Your task to perform on an android device: View the shopping cart on newegg.com. Add logitech g502 to the cart on newegg.com Image 0: 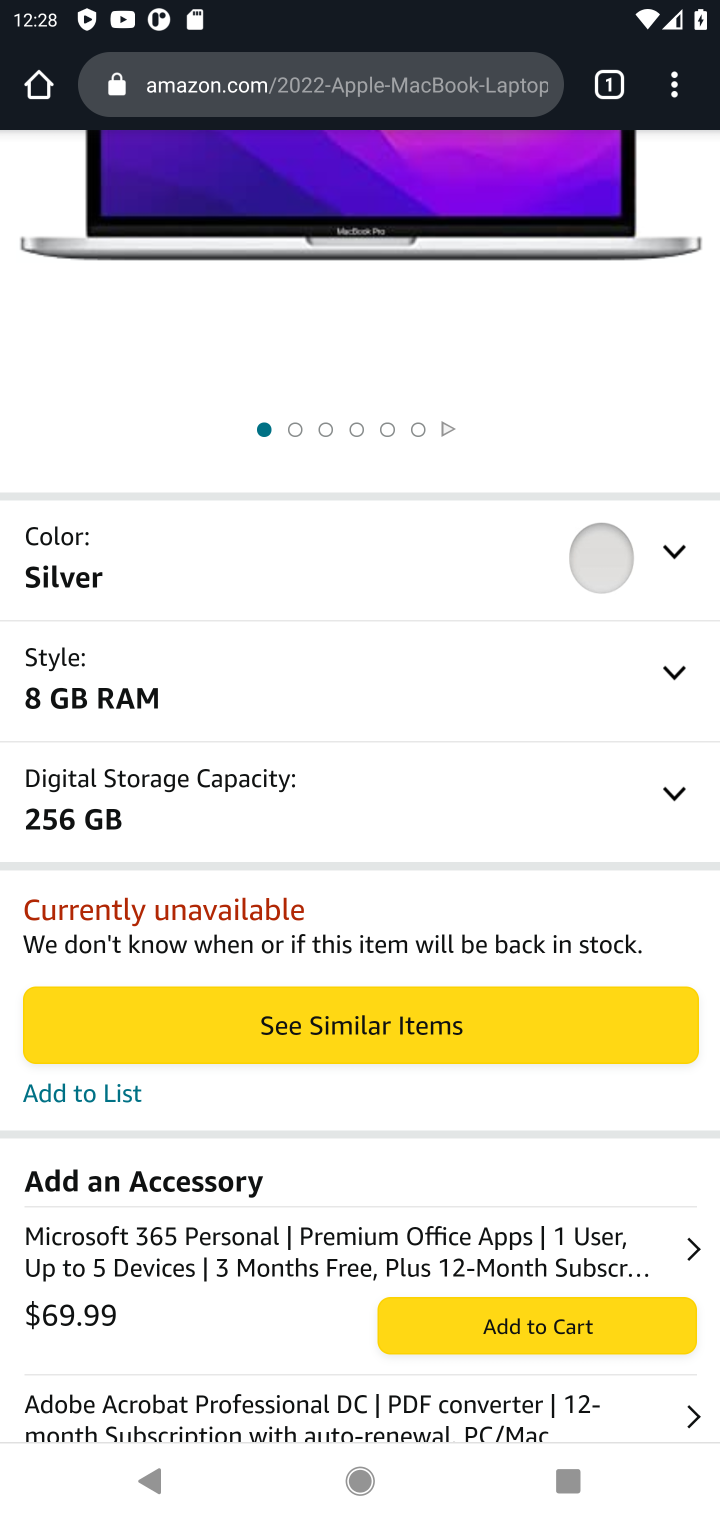
Step 0: press home button
Your task to perform on an android device: View the shopping cart on newegg.com. Add logitech g502 to the cart on newegg.com Image 1: 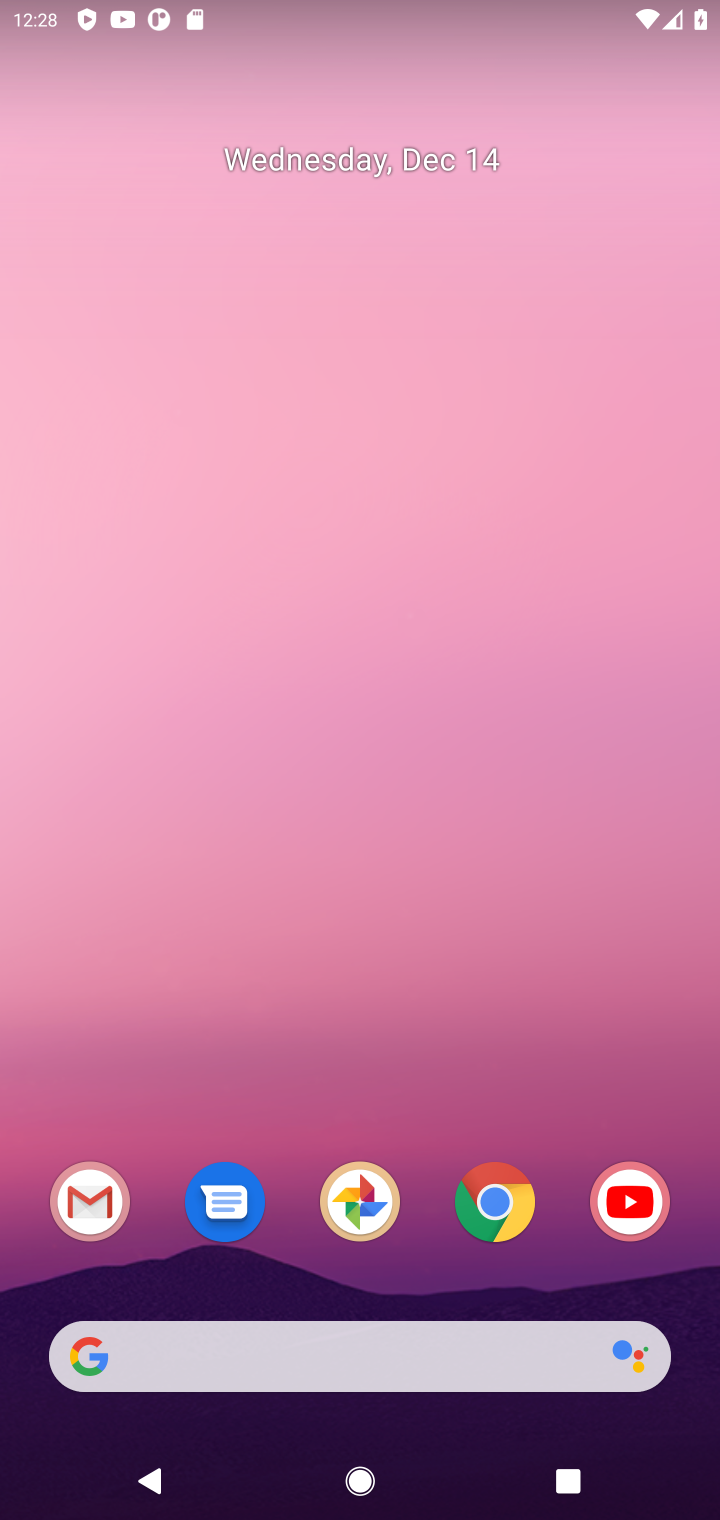
Step 1: click (497, 1213)
Your task to perform on an android device: View the shopping cart on newegg.com. Add logitech g502 to the cart on newegg.com Image 2: 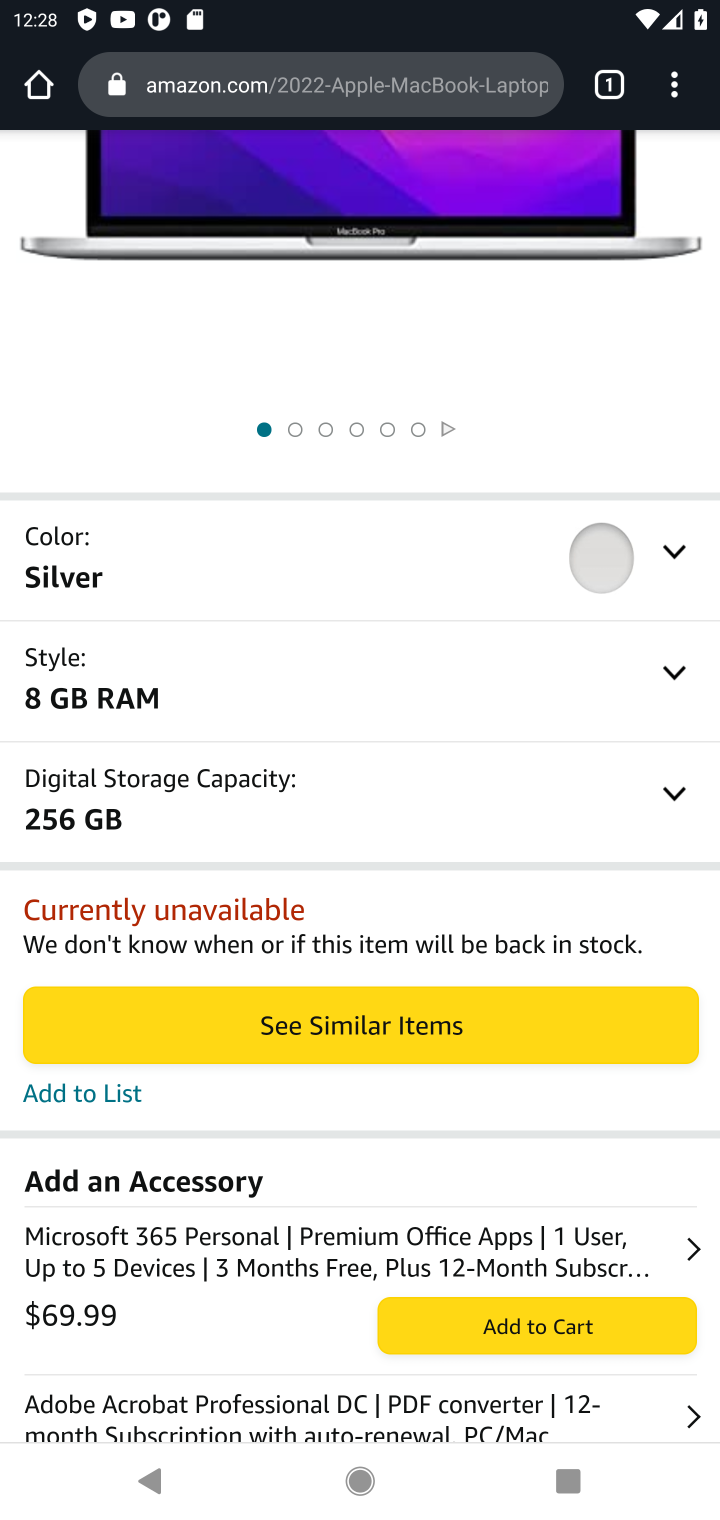
Step 2: click (301, 97)
Your task to perform on an android device: View the shopping cart on newegg.com. Add logitech g502 to the cart on newegg.com Image 3: 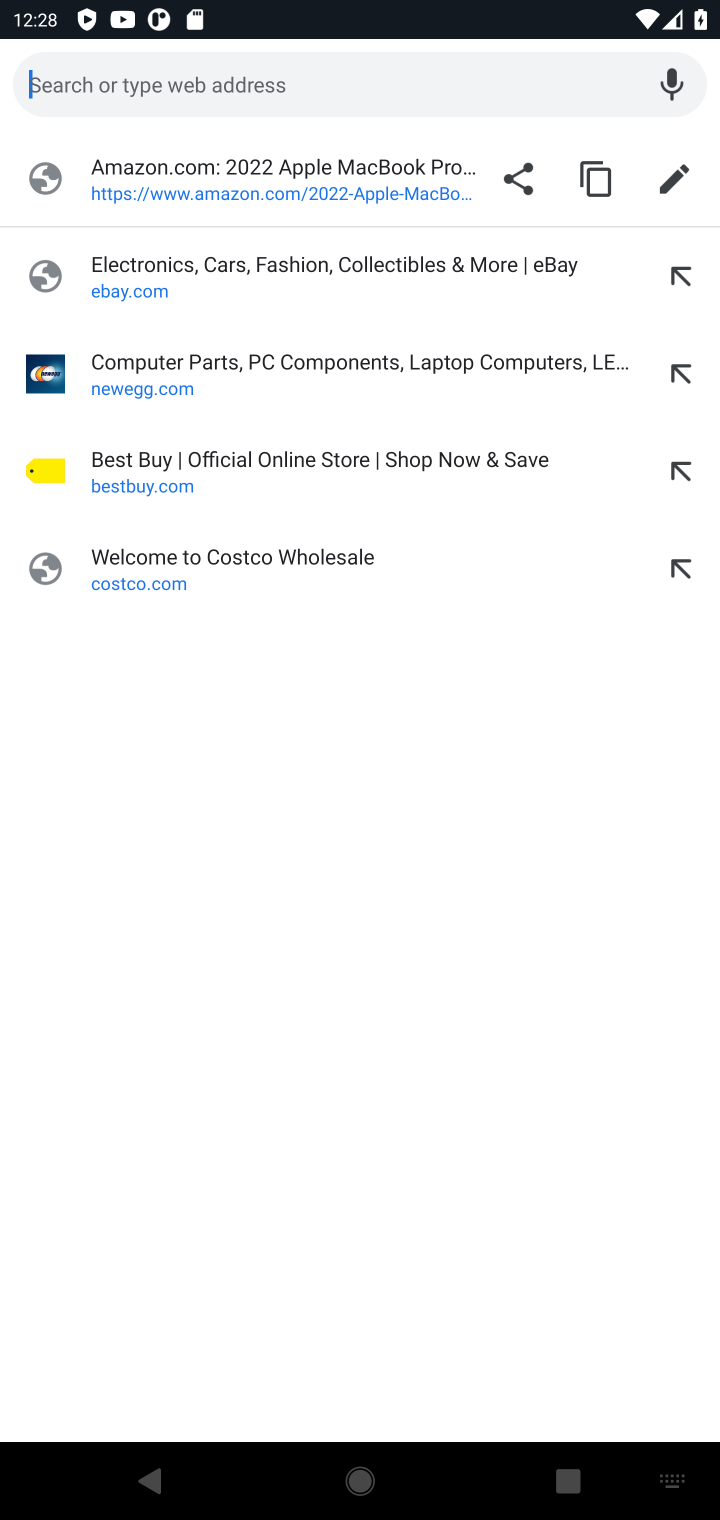
Step 3: click (235, 366)
Your task to perform on an android device: View the shopping cart on newegg.com. Add logitech g502 to the cart on newegg.com Image 4: 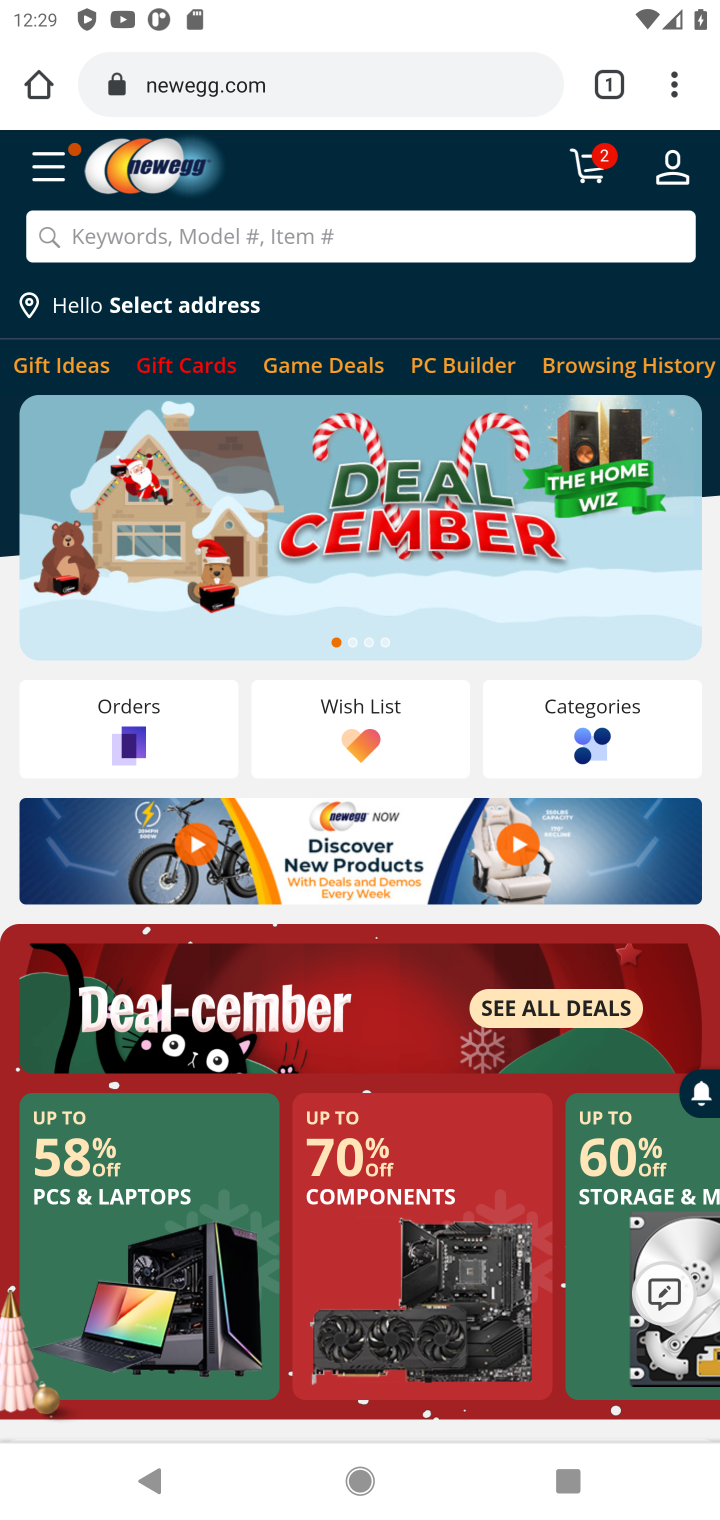
Step 4: click (431, 237)
Your task to perform on an android device: View the shopping cart on newegg.com. Add logitech g502 to the cart on newegg.com Image 5: 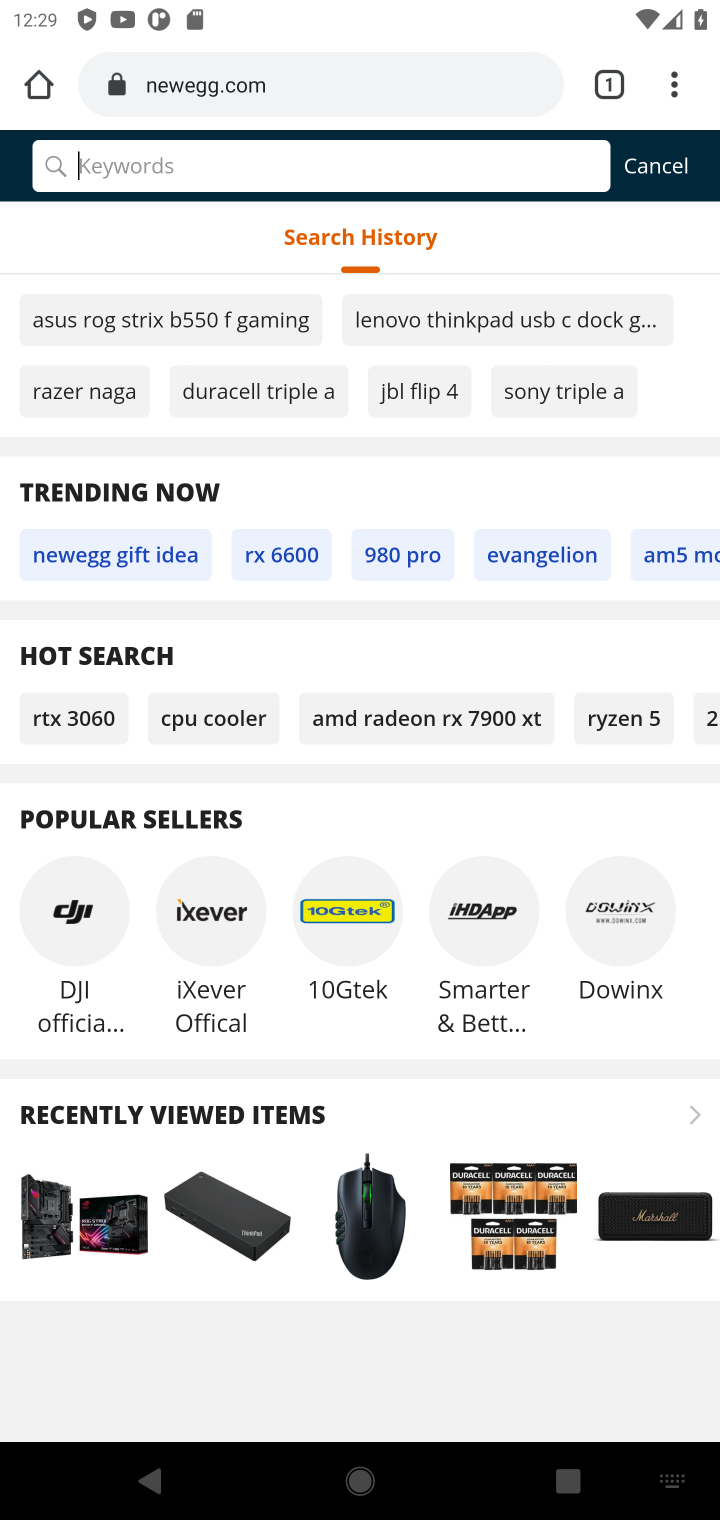
Step 5: click (719, 1507)
Your task to perform on an android device: View the shopping cart on newegg.com. Add logitech g502 to the cart on newegg.com Image 6: 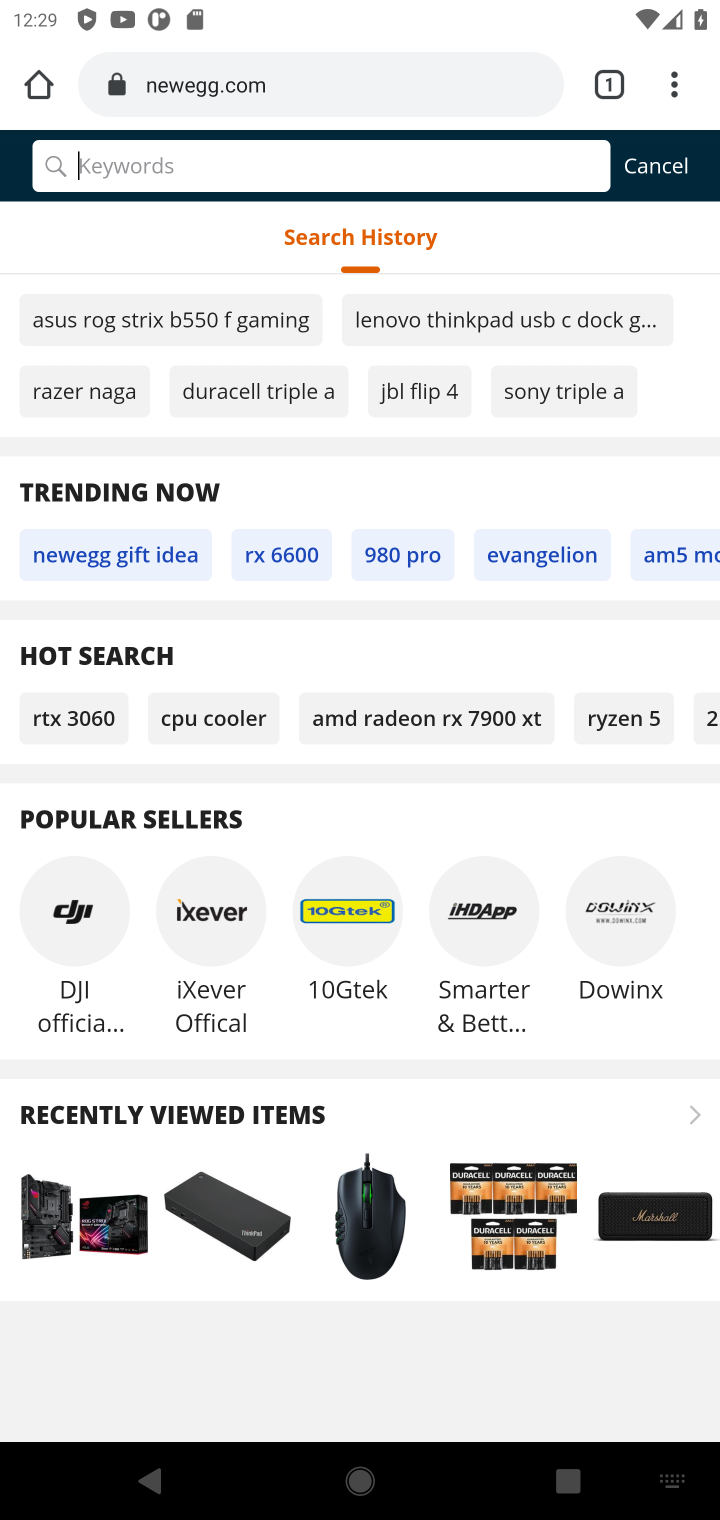
Step 6: type "logitech g502"
Your task to perform on an android device: View the shopping cart on newegg.com. Add logitech g502 to the cart on newegg.com Image 7: 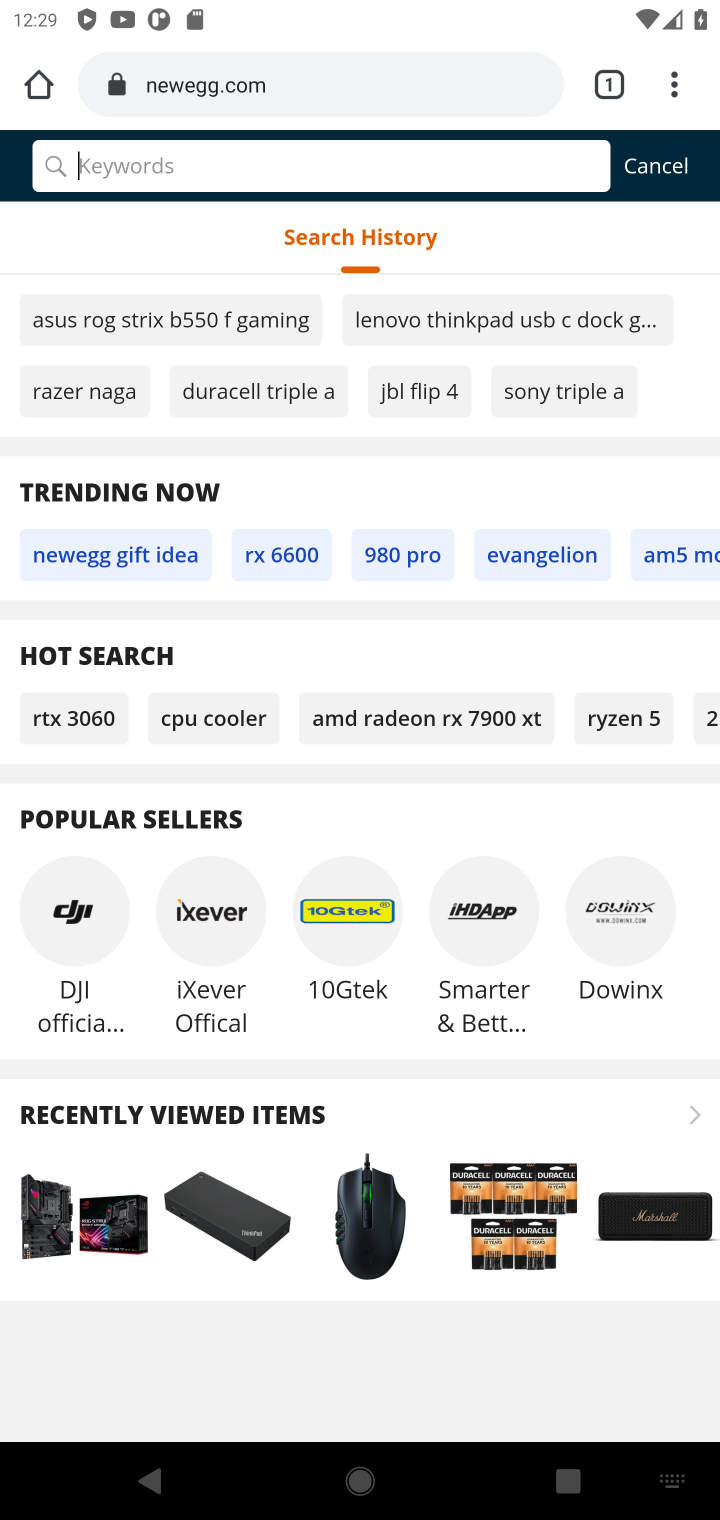
Step 7: drag from (719, 1507) to (711, 337)
Your task to perform on an android device: View the shopping cart on newegg.com. Add logitech g502 to the cart on newegg.com Image 8: 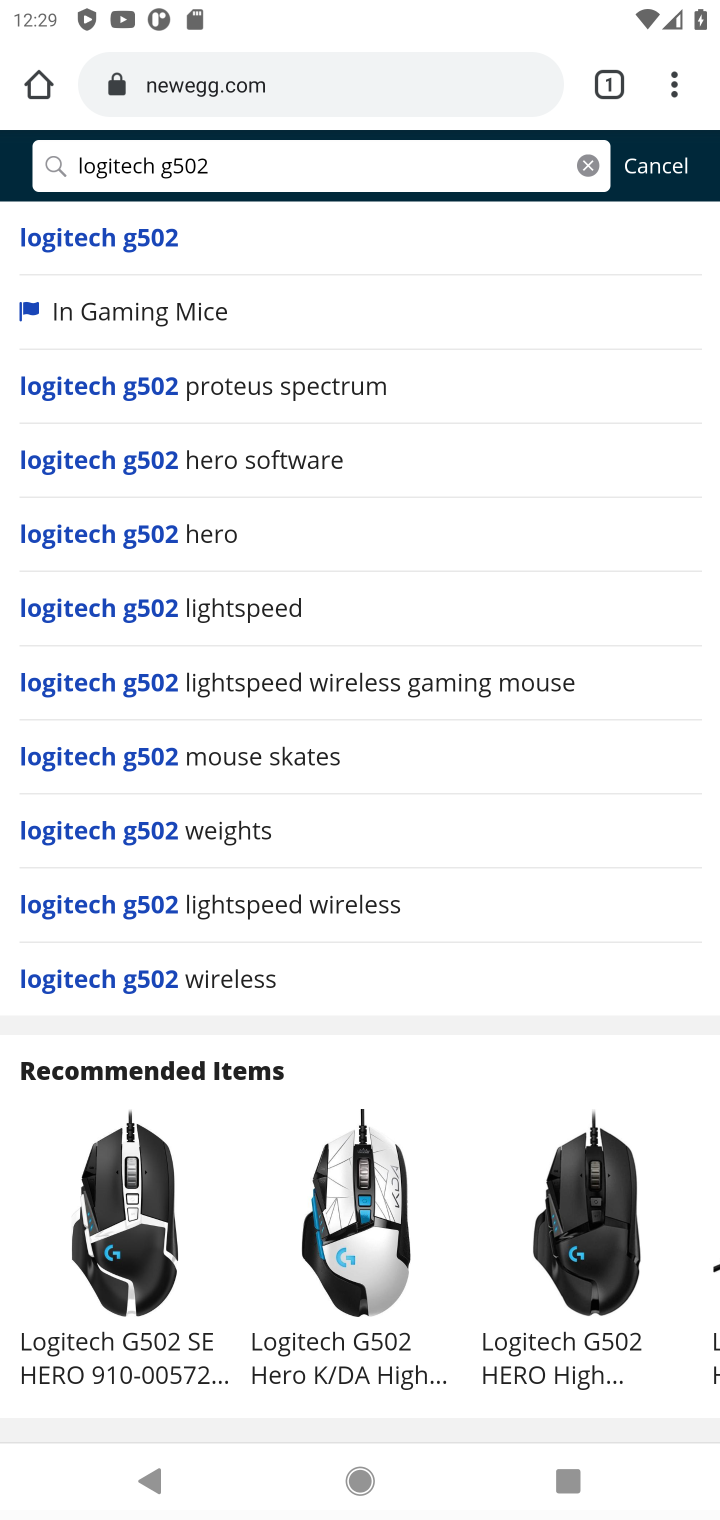
Step 8: click (106, 238)
Your task to perform on an android device: View the shopping cart on newegg.com. Add logitech g502 to the cart on newegg.com Image 9: 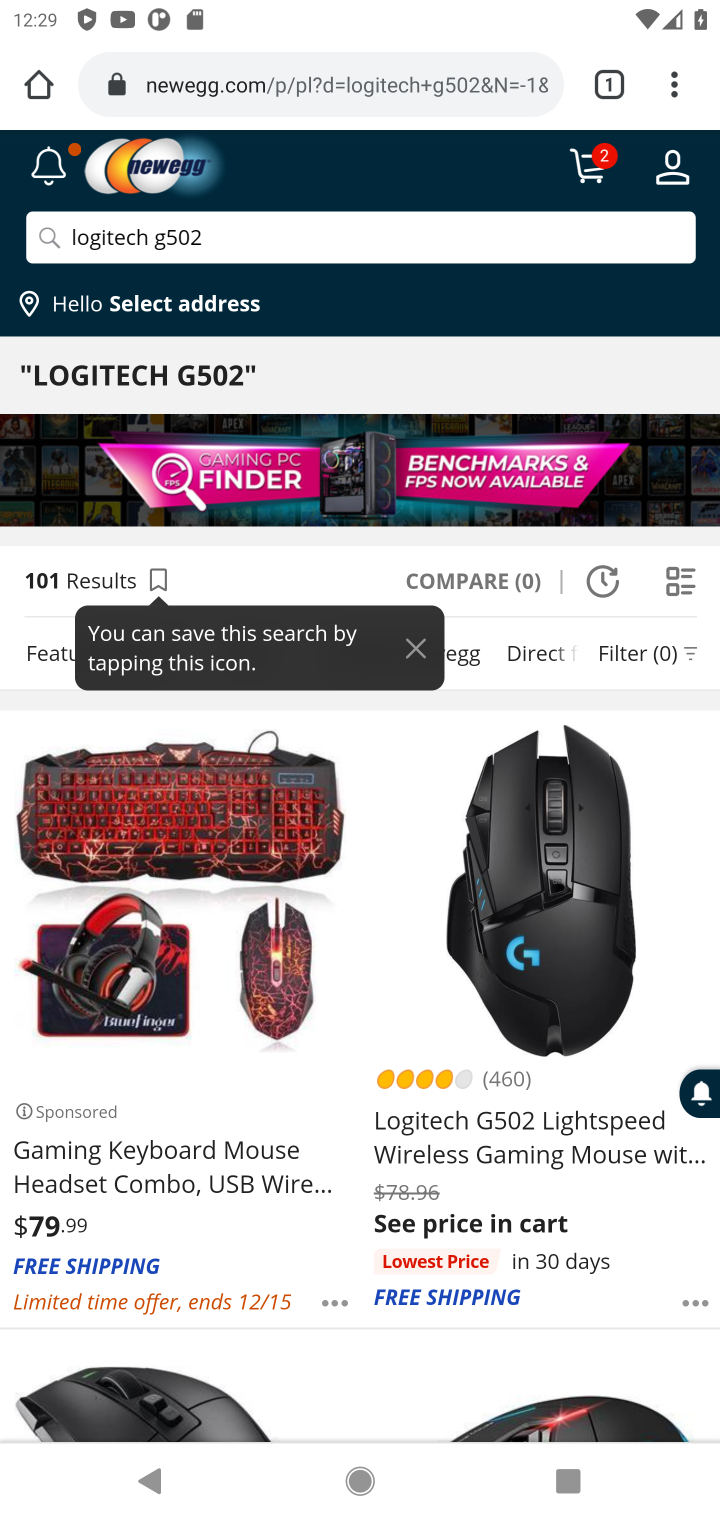
Step 9: click (151, 923)
Your task to perform on an android device: View the shopping cart on newegg.com. Add logitech g502 to the cart on newegg.com Image 10: 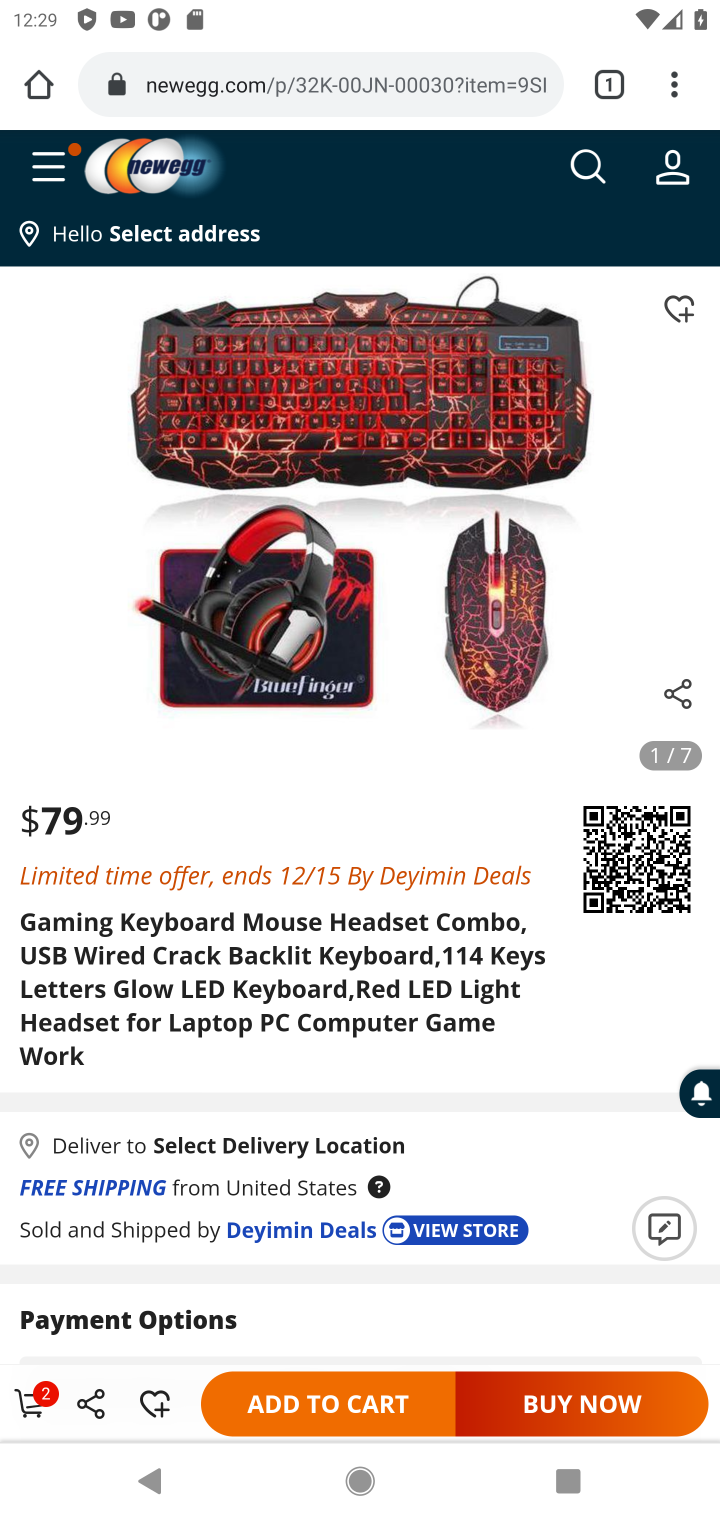
Step 10: click (317, 1404)
Your task to perform on an android device: View the shopping cart on newegg.com. Add logitech g502 to the cart on newegg.com Image 11: 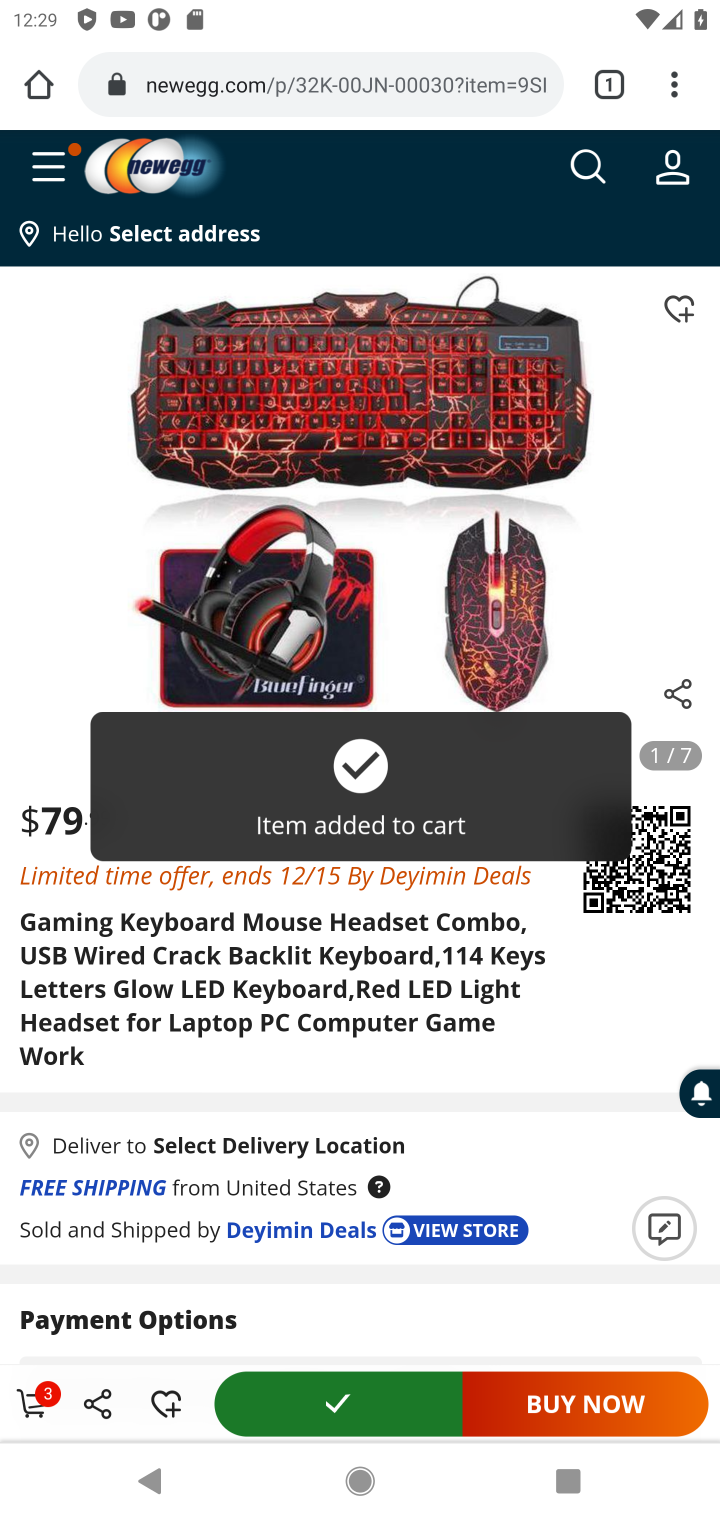
Step 11: click (41, 1406)
Your task to perform on an android device: View the shopping cart on newegg.com. Add logitech g502 to the cart on newegg.com Image 12: 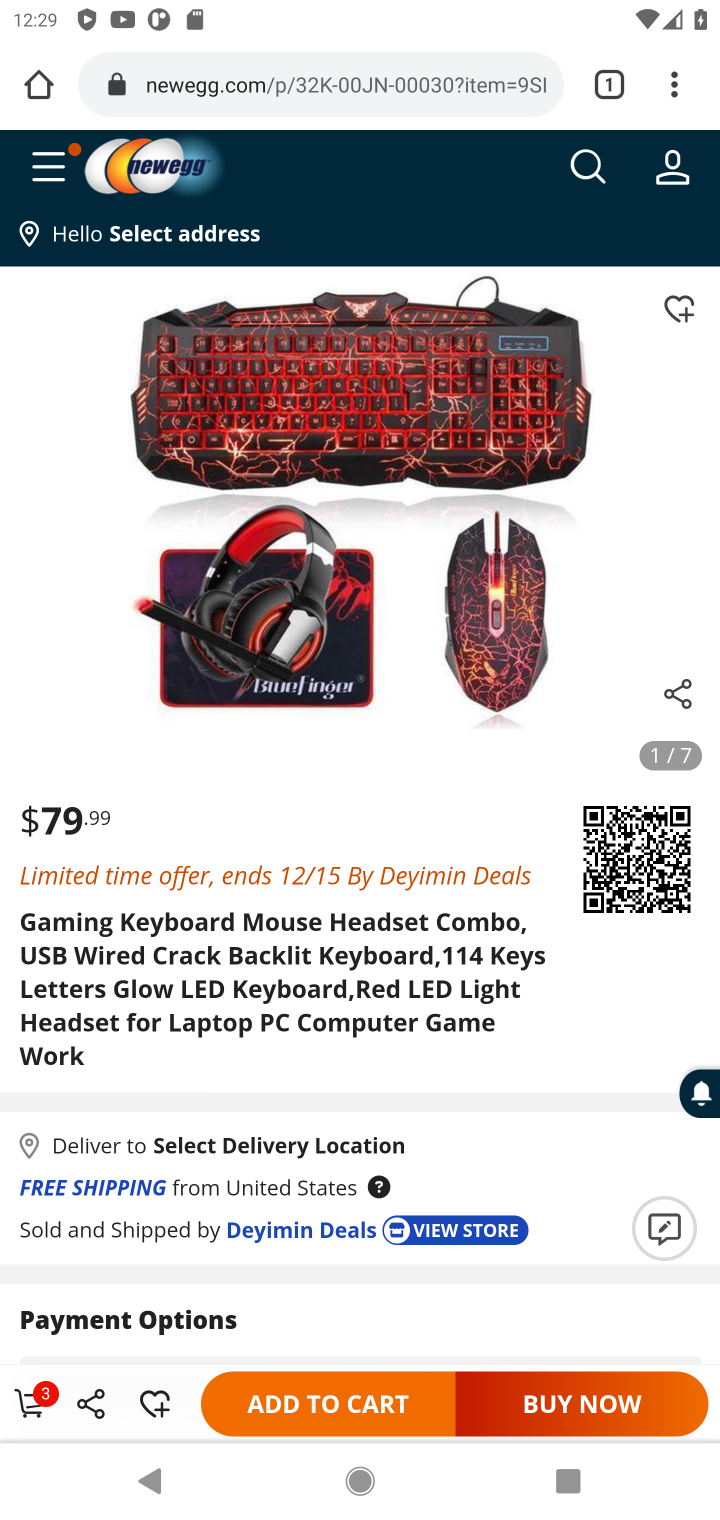
Step 12: click (28, 1411)
Your task to perform on an android device: View the shopping cart on newegg.com. Add logitech g502 to the cart on newegg.com Image 13: 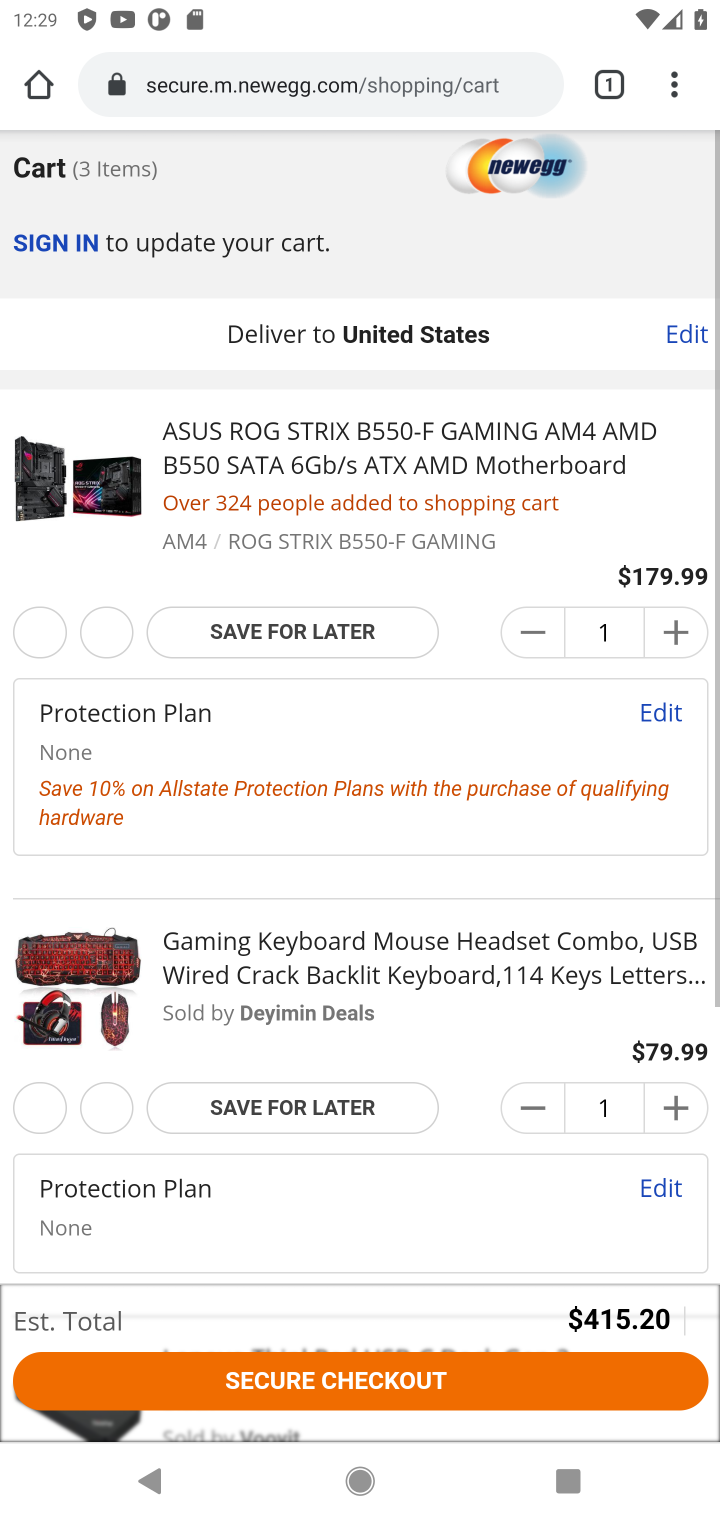
Step 13: click (329, 1382)
Your task to perform on an android device: View the shopping cart on newegg.com. Add logitech g502 to the cart on newegg.com Image 14: 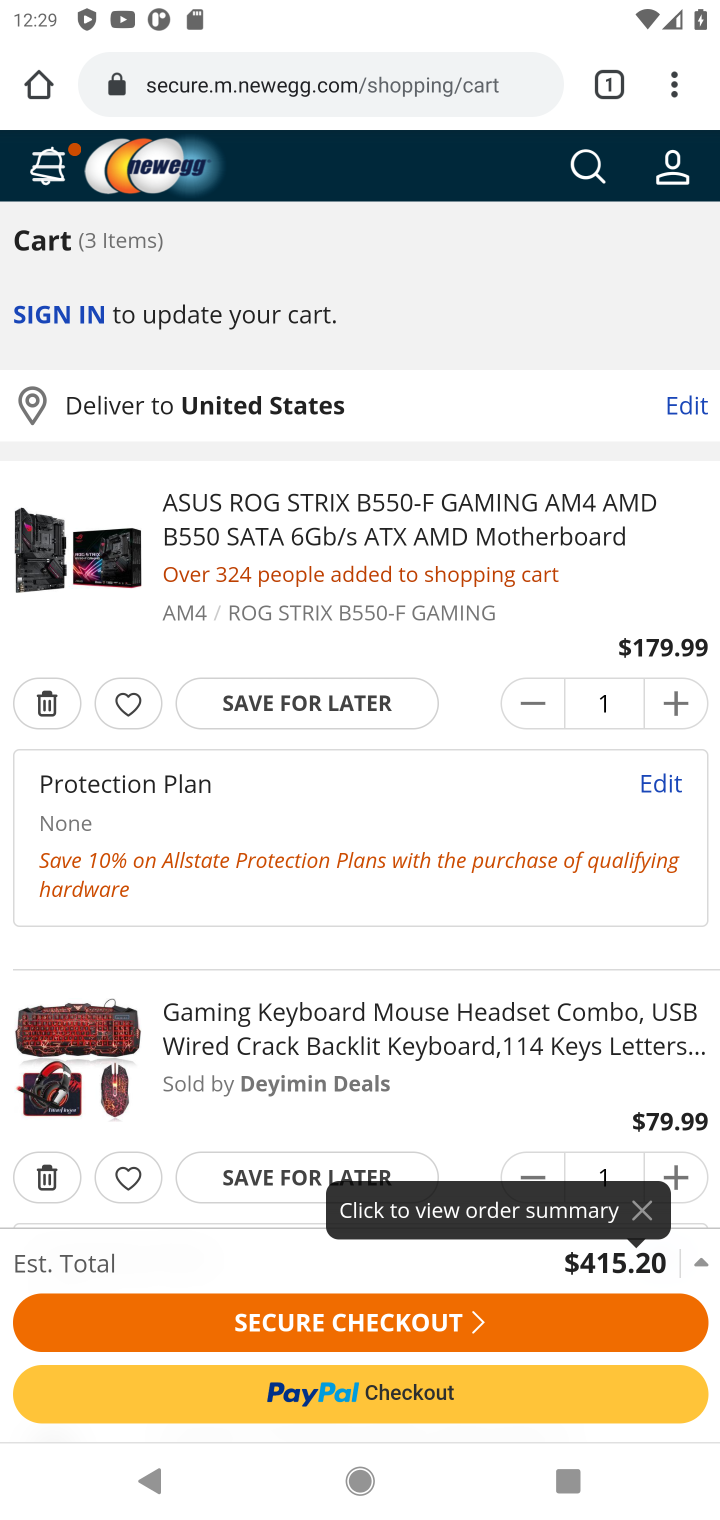
Step 14: click (391, 1319)
Your task to perform on an android device: View the shopping cart on newegg.com. Add logitech g502 to the cart on newegg.com Image 15: 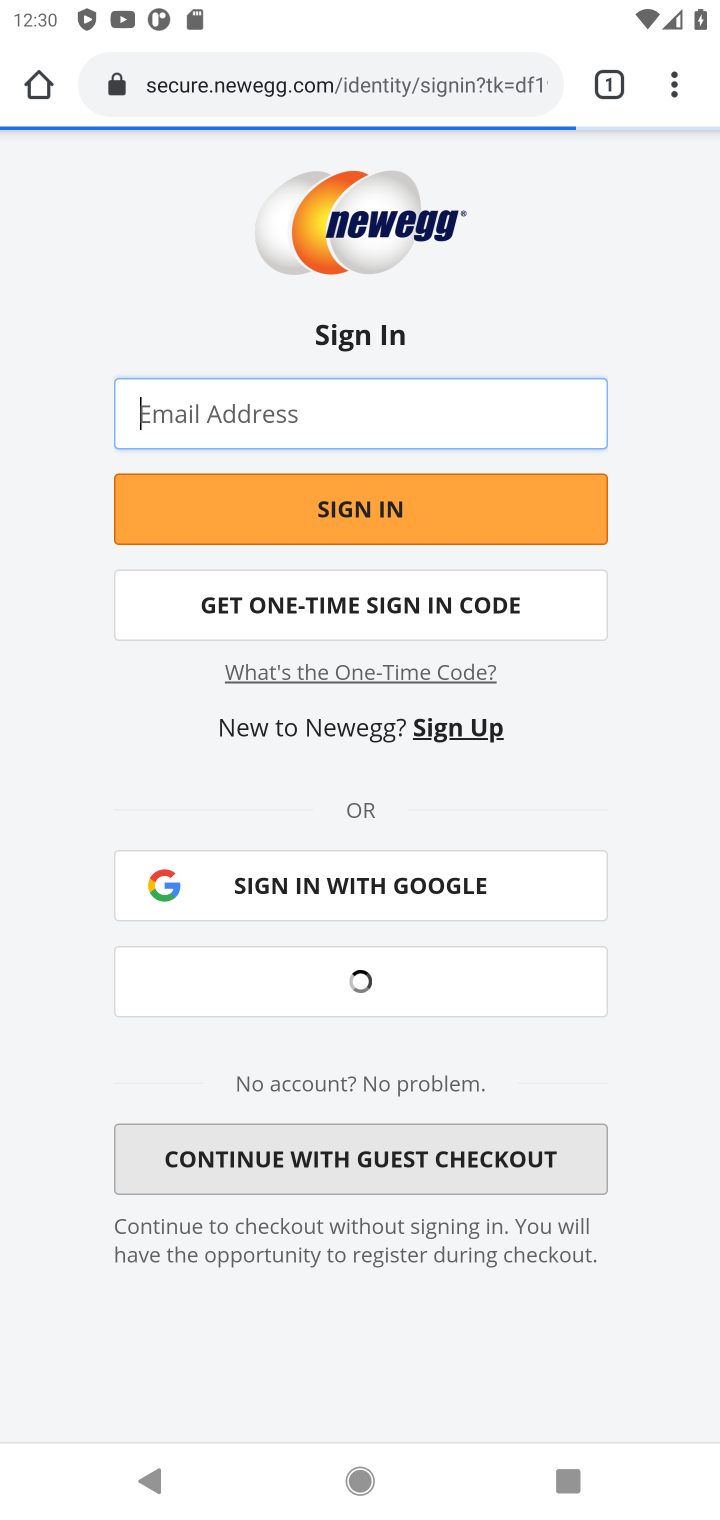
Step 15: task complete